Your task to perform on an android device: Go to Amazon Image 0: 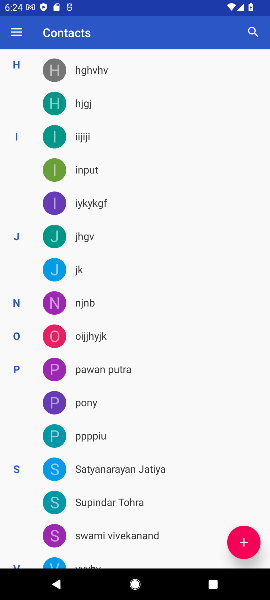
Step 0: press home button
Your task to perform on an android device: Go to Amazon Image 1: 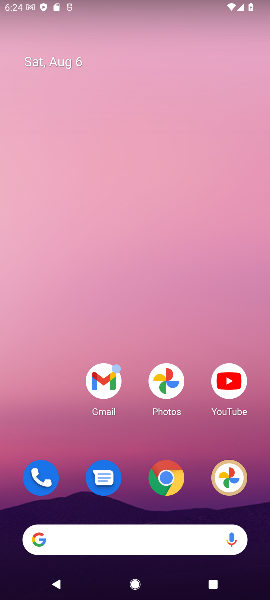
Step 1: click (165, 482)
Your task to perform on an android device: Go to Amazon Image 2: 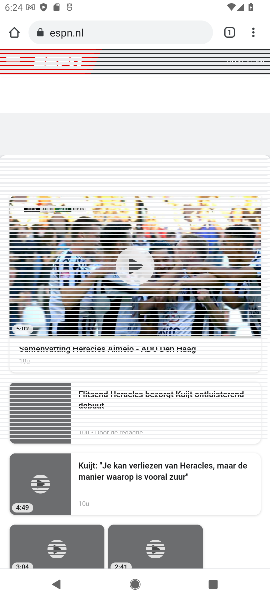
Step 2: click (155, 28)
Your task to perform on an android device: Go to Amazon Image 3: 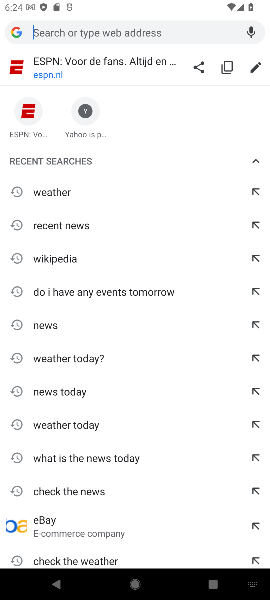
Step 3: type "Amazon"
Your task to perform on an android device: Go to Amazon Image 4: 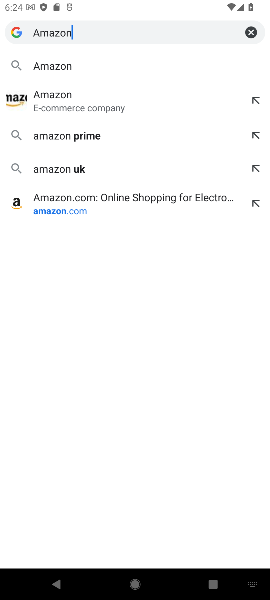
Step 4: click (60, 94)
Your task to perform on an android device: Go to Amazon Image 5: 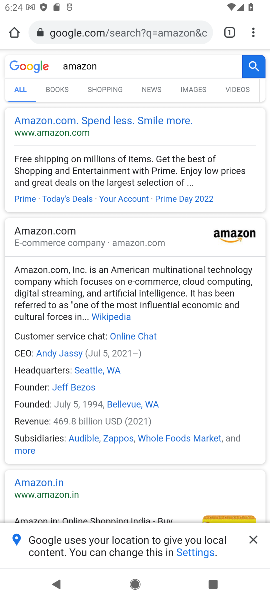
Step 5: task complete